Your task to perform on an android device: set the stopwatch Image 0: 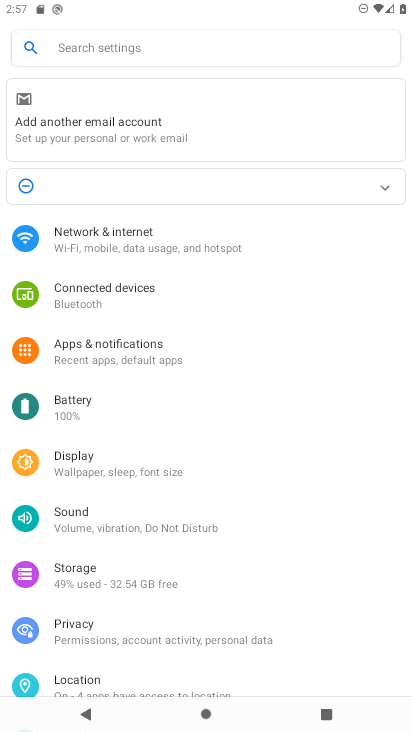
Step 0: press home button
Your task to perform on an android device: set the stopwatch Image 1: 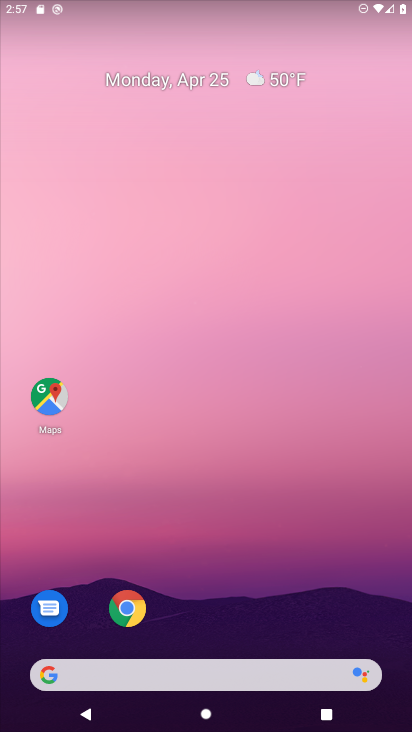
Step 1: drag from (203, 578) to (203, 183)
Your task to perform on an android device: set the stopwatch Image 2: 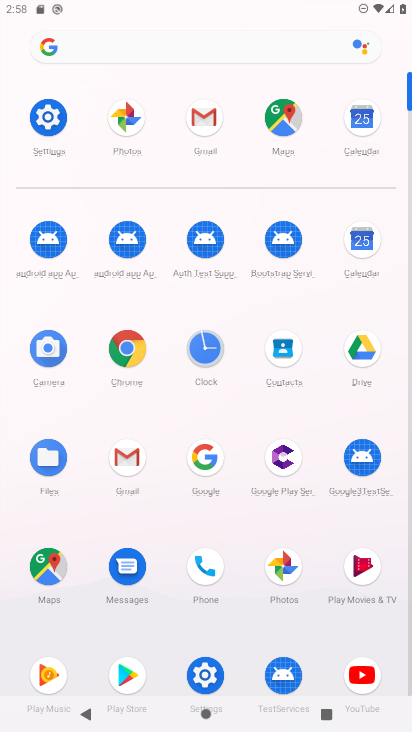
Step 2: click (219, 347)
Your task to perform on an android device: set the stopwatch Image 3: 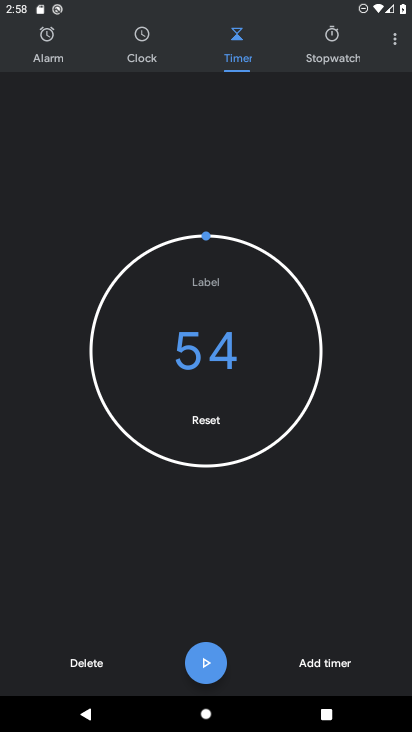
Step 3: click (321, 44)
Your task to perform on an android device: set the stopwatch Image 4: 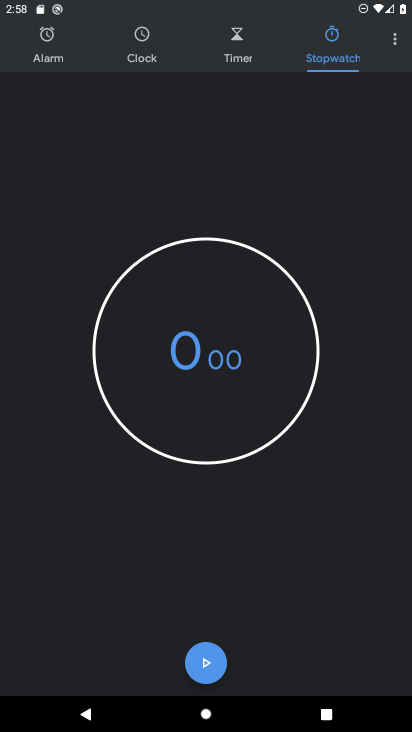
Step 4: click (205, 659)
Your task to perform on an android device: set the stopwatch Image 5: 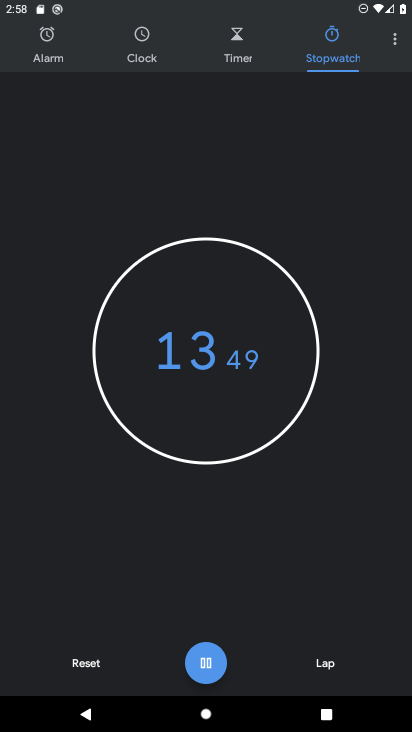
Step 5: task complete